Your task to perform on an android device: turn off improve location accuracy Image 0: 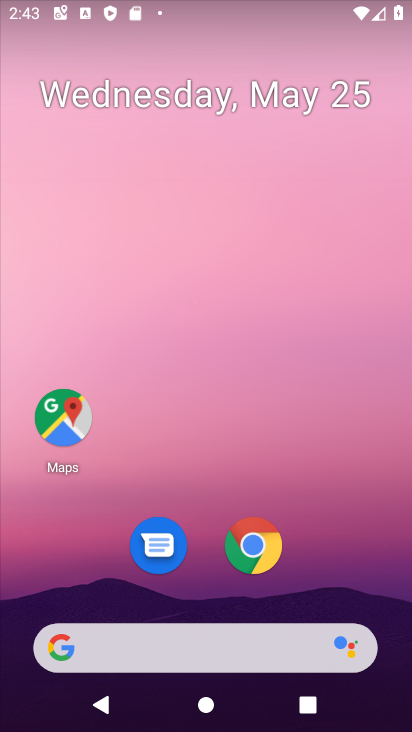
Step 0: drag from (369, 560) to (325, 129)
Your task to perform on an android device: turn off improve location accuracy Image 1: 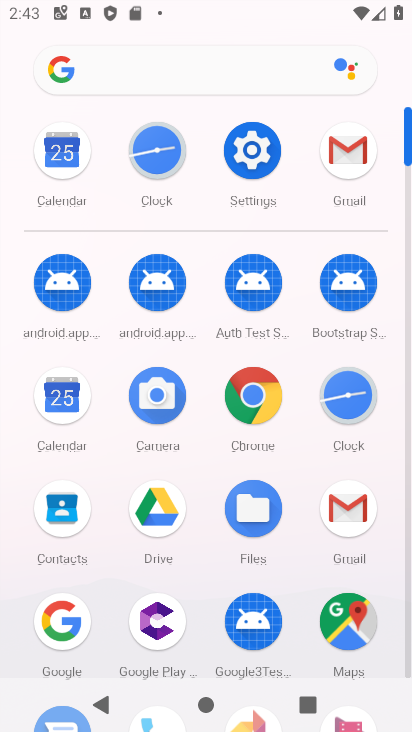
Step 1: click (257, 161)
Your task to perform on an android device: turn off improve location accuracy Image 2: 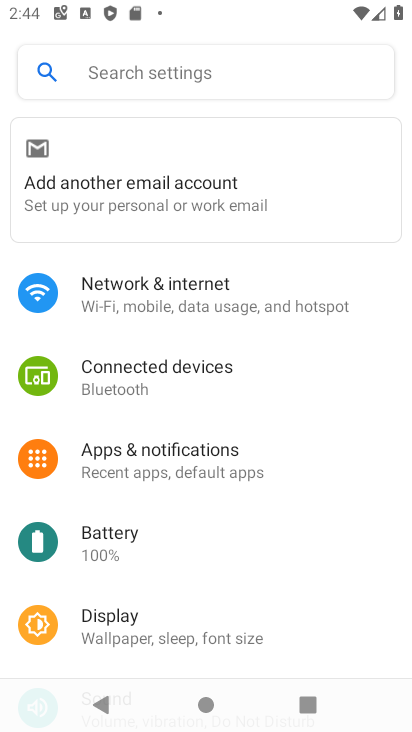
Step 2: click (214, 289)
Your task to perform on an android device: turn off improve location accuracy Image 3: 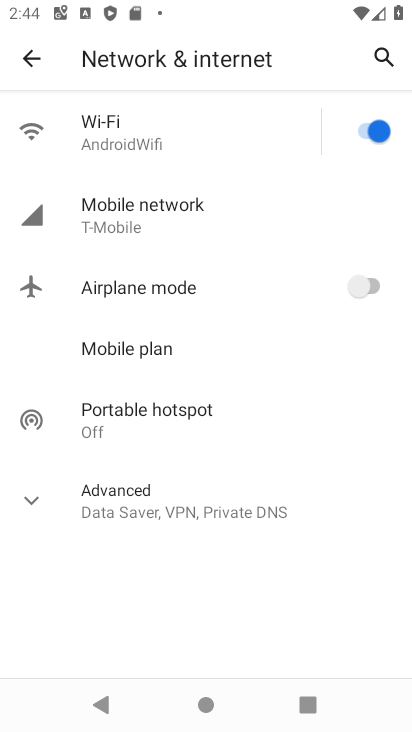
Step 3: click (184, 160)
Your task to perform on an android device: turn off improve location accuracy Image 4: 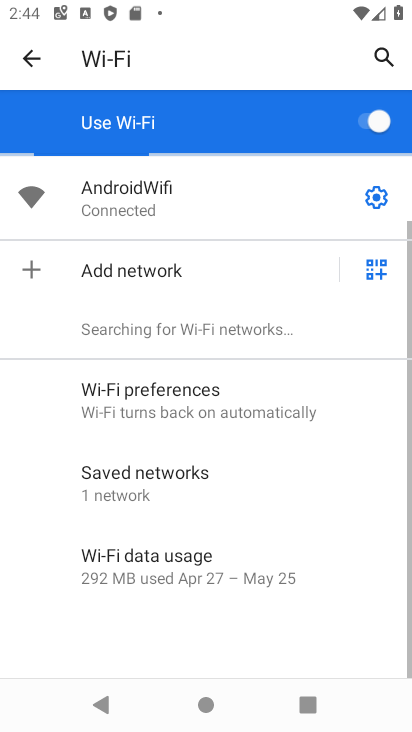
Step 4: click (24, 63)
Your task to perform on an android device: turn off improve location accuracy Image 5: 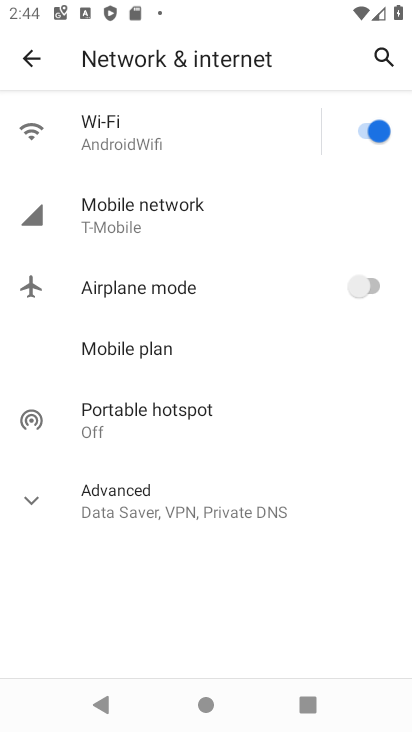
Step 5: click (24, 63)
Your task to perform on an android device: turn off improve location accuracy Image 6: 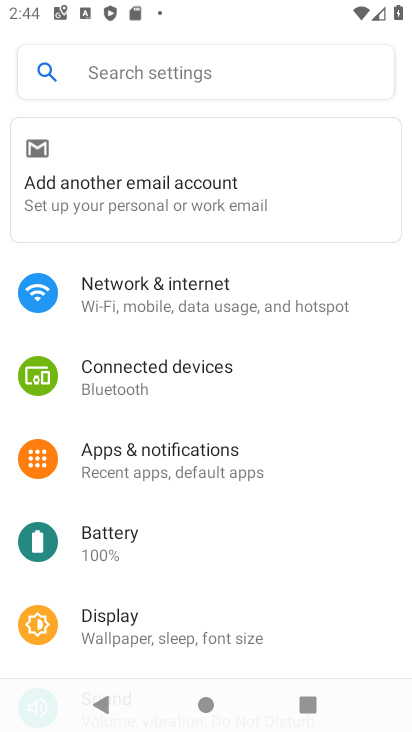
Step 6: drag from (211, 550) to (204, 446)
Your task to perform on an android device: turn off improve location accuracy Image 7: 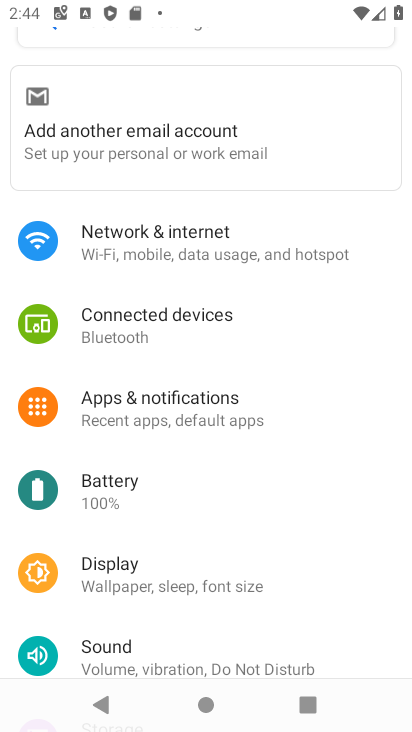
Step 7: drag from (219, 548) to (204, 234)
Your task to perform on an android device: turn off improve location accuracy Image 8: 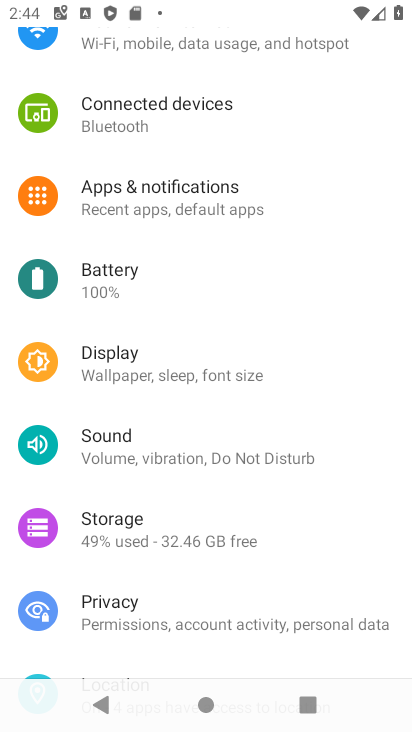
Step 8: click (189, 659)
Your task to perform on an android device: turn off improve location accuracy Image 9: 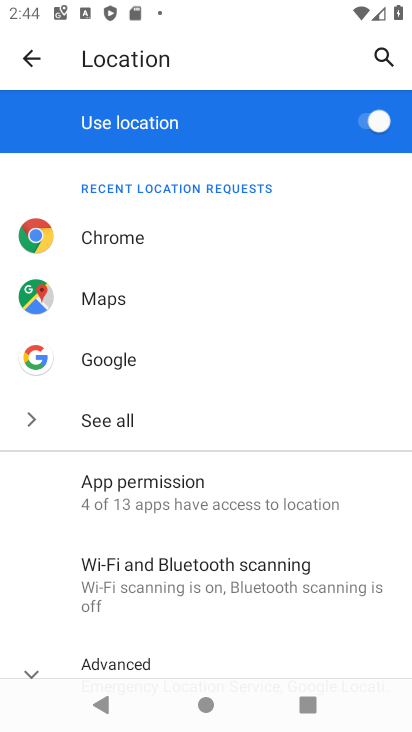
Step 9: click (198, 651)
Your task to perform on an android device: turn off improve location accuracy Image 10: 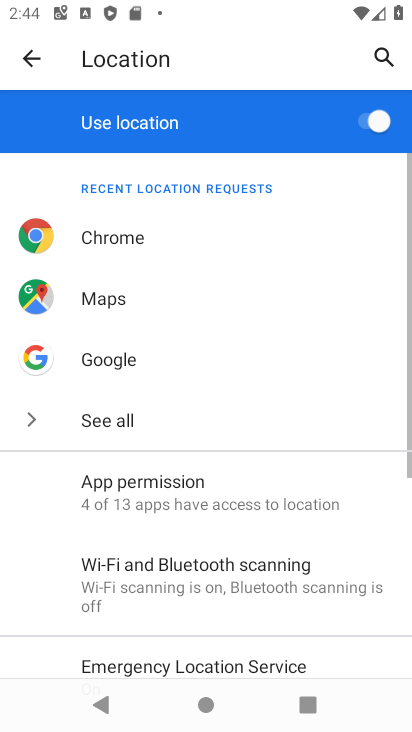
Step 10: drag from (242, 611) to (231, 413)
Your task to perform on an android device: turn off improve location accuracy Image 11: 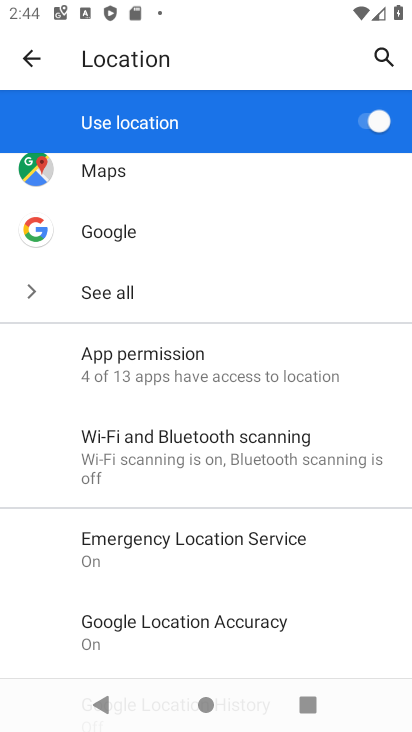
Step 11: drag from (234, 631) to (225, 509)
Your task to perform on an android device: turn off improve location accuracy Image 12: 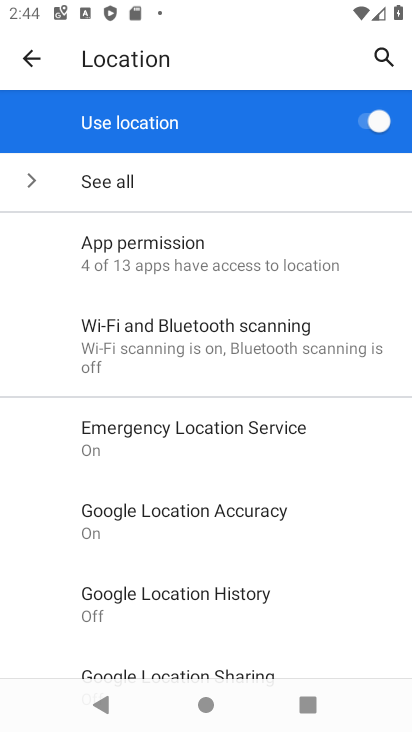
Step 12: click (217, 517)
Your task to perform on an android device: turn off improve location accuracy Image 13: 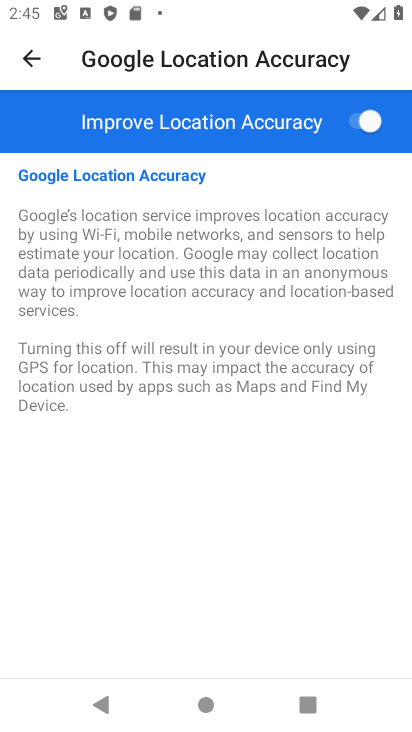
Step 13: press home button
Your task to perform on an android device: turn off improve location accuracy Image 14: 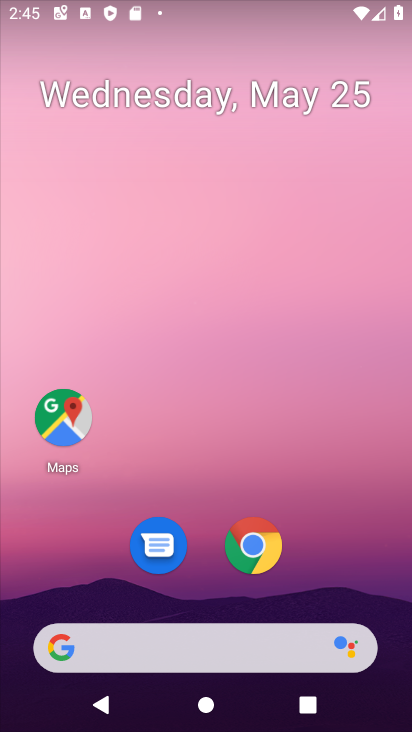
Step 14: drag from (351, 574) to (281, 75)
Your task to perform on an android device: turn off improve location accuracy Image 15: 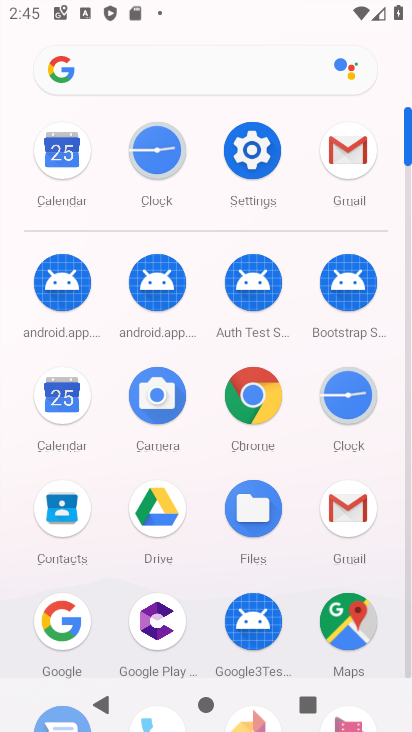
Step 15: click (238, 180)
Your task to perform on an android device: turn off improve location accuracy Image 16: 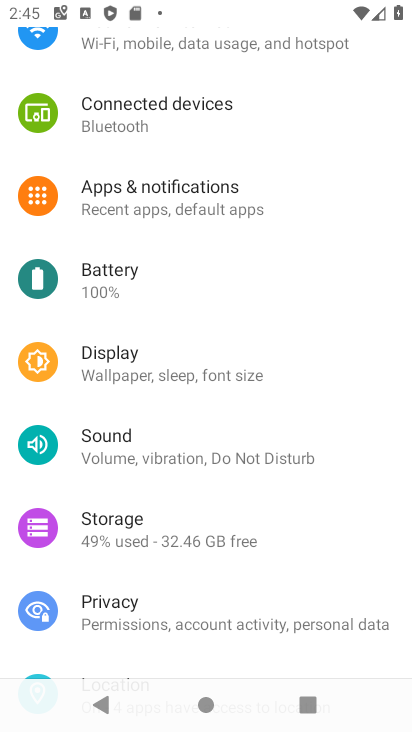
Step 16: drag from (216, 621) to (192, 378)
Your task to perform on an android device: turn off improve location accuracy Image 17: 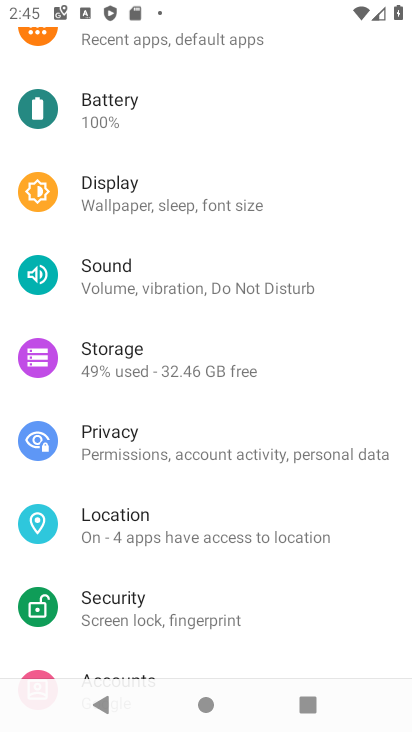
Step 17: click (230, 523)
Your task to perform on an android device: turn off improve location accuracy Image 18: 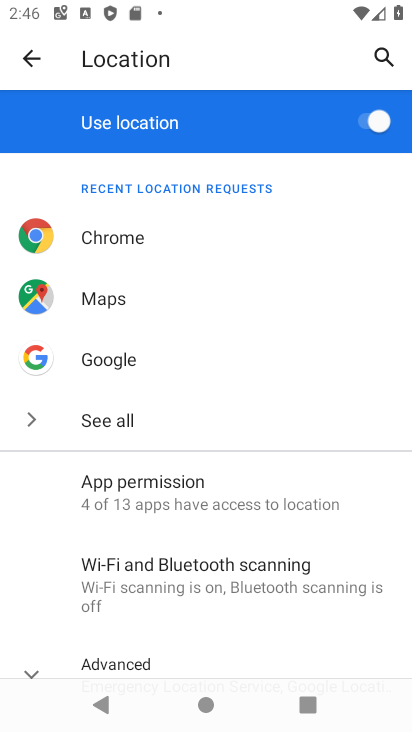
Step 18: drag from (248, 644) to (244, 386)
Your task to perform on an android device: turn off improve location accuracy Image 19: 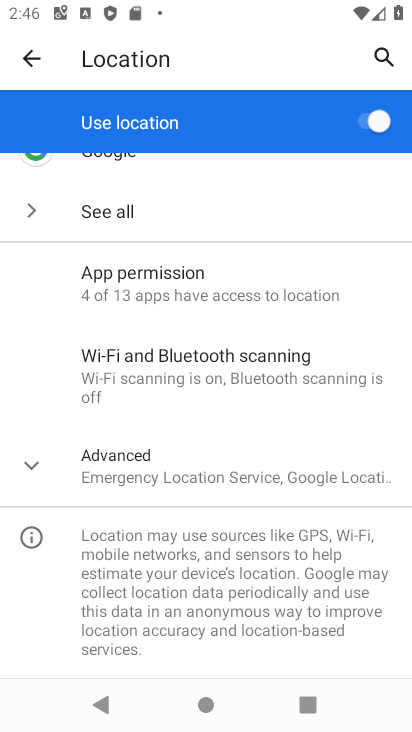
Step 19: click (205, 446)
Your task to perform on an android device: turn off improve location accuracy Image 20: 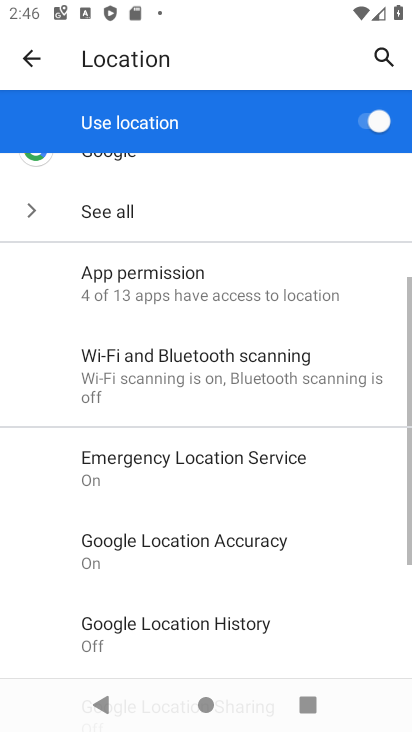
Step 20: drag from (250, 548) to (245, 242)
Your task to perform on an android device: turn off improve location accuracy Image 21: 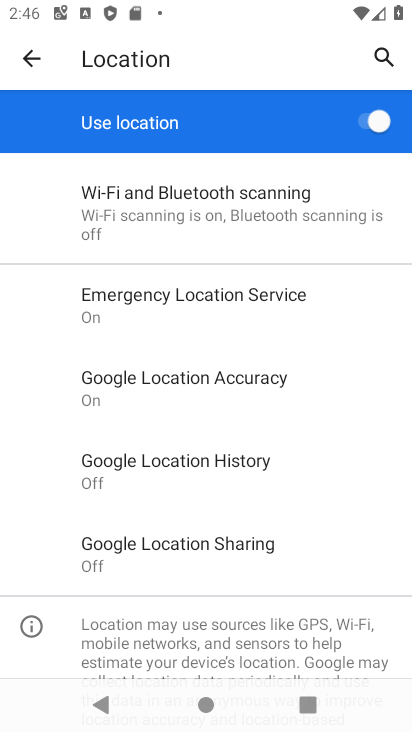
Step 21: click (200, 376)
Your task to perform on an android device: turn off improve location accuracy Image 22: 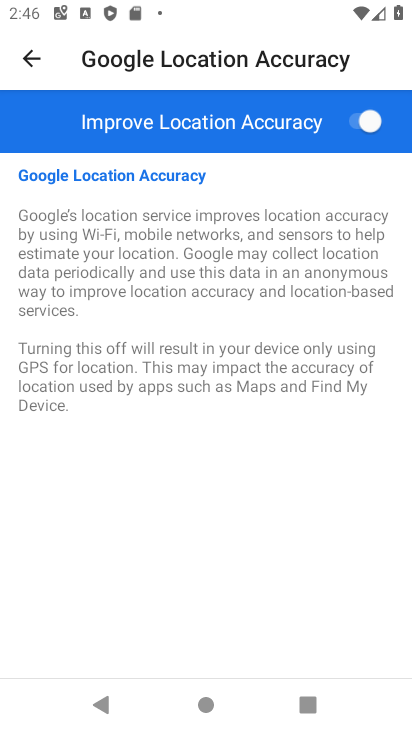
Step 22: task complete